Your task to perform on an android device: Go to Wikipedia Image 0: 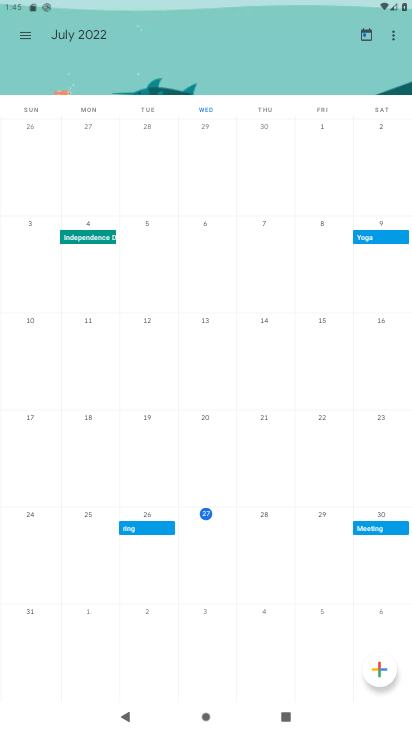
Step 0: press home button
Your task to perform on an android device: Go to Wikipedia Image 1: 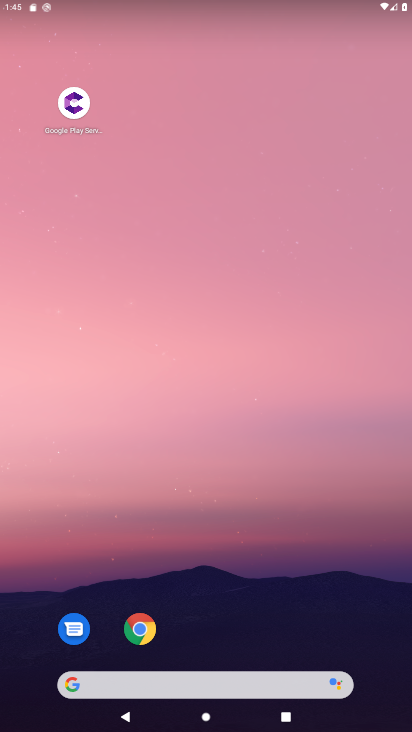
Step 1: click (146, 632)
Your task to perform on an android device: Go to Wikipedia Image 2: 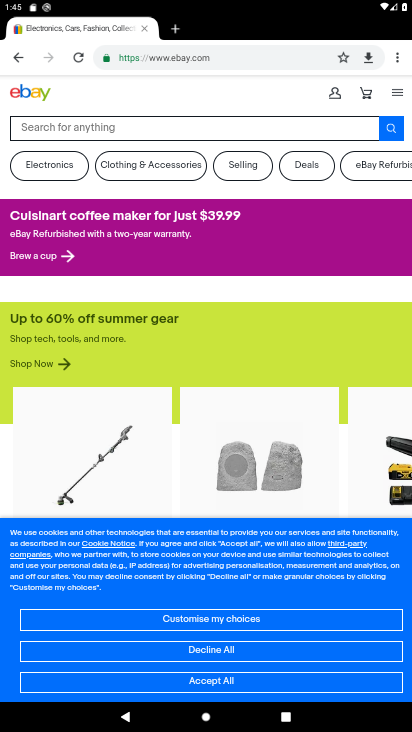
Step 2: click (232, 60)
Your task to perform on an android device: Go to Wikipedia Image 3: 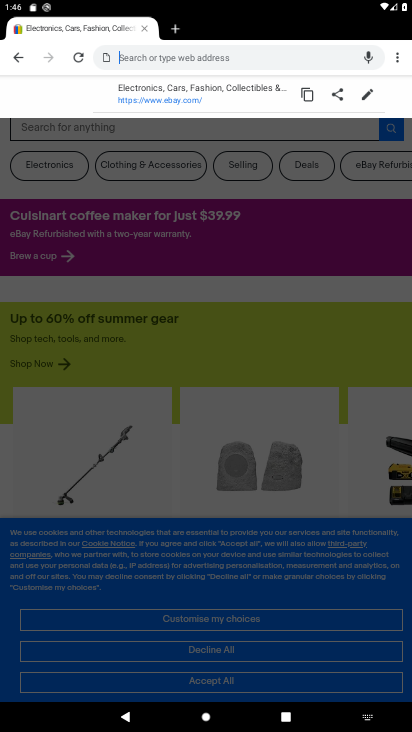
Step 3: type "wikipedia"
Your task to perform on an android device: Go to Wikipedia Image 4: 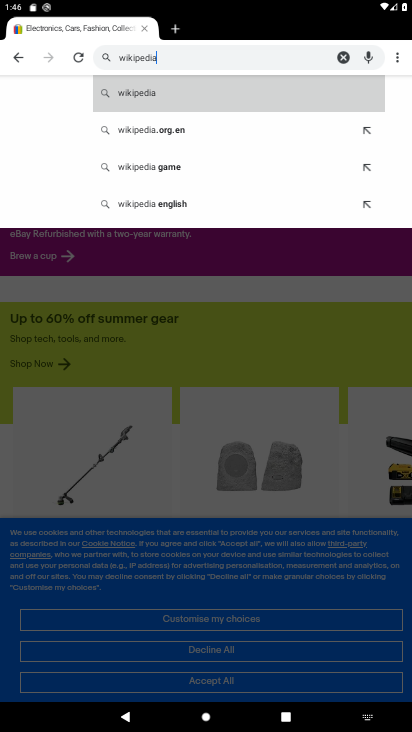
Step 4: click (282, 94)
Your task to perform on an android device: Go to Wikipedia Image 5: 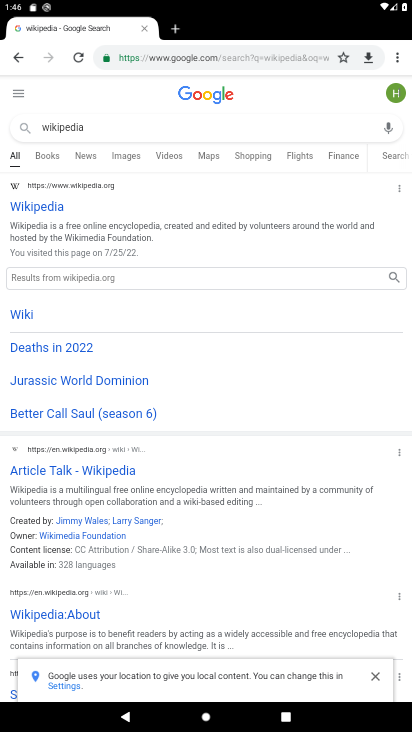
Step 5: click (25, 205)
Your task to perform on an android device: Go to Wikipedia Image 6: 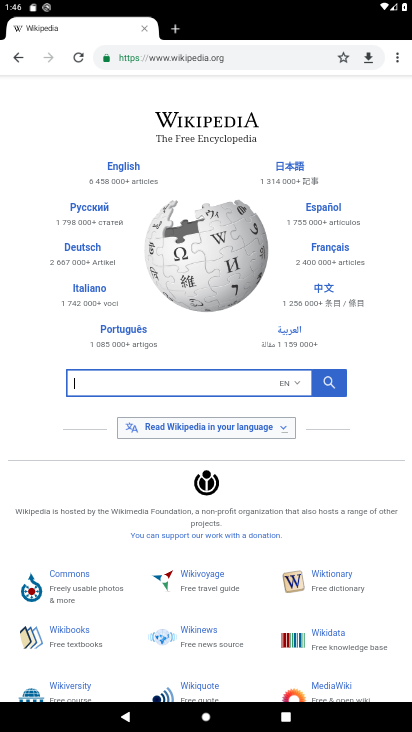
Step 6: task complete